Your task to perform on an android device: install app "LinkedIn" Image 0: 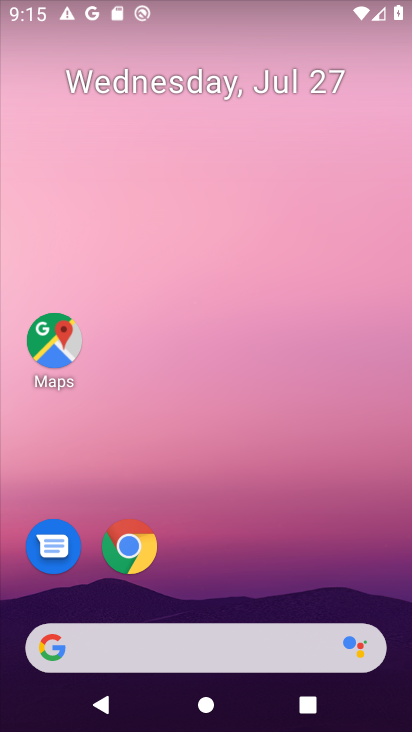
Step 0: drag from (278, 589) to (305, 9)
Your task to perform on an android device: install app "LinkedIn" Image 1: 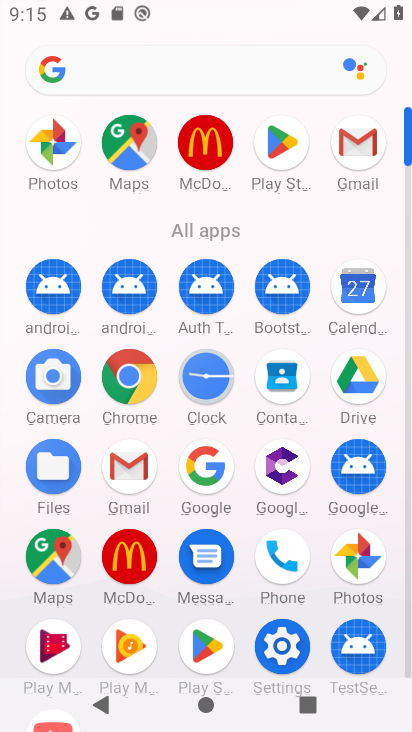
Step 1: click (273, 163)
Your task to perform on an android device: install app "LinkedIn" Image 2: 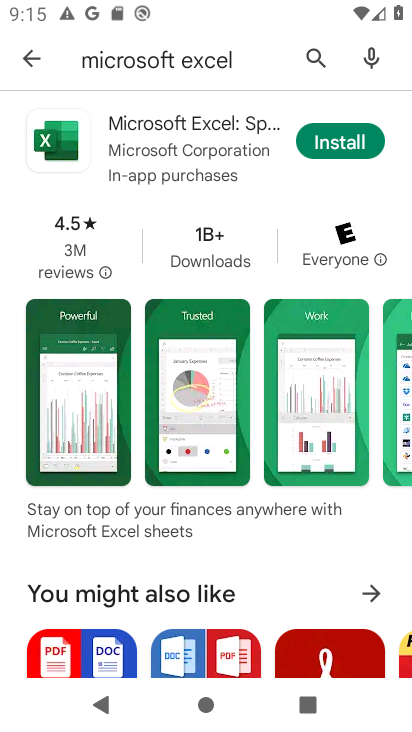
Step 2: click (312, 50)
Your task to perform on an android device: install app "LinkedIn" Image 3: 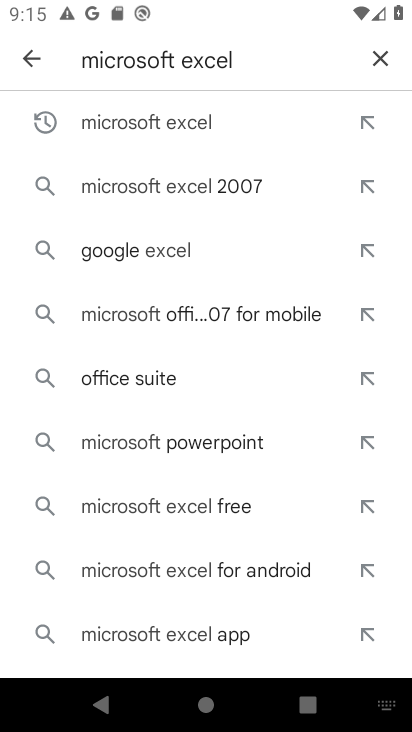
Step 3: click (382, 60)
Your task to perform on an android device: install app "LinkedIn" Image 4: 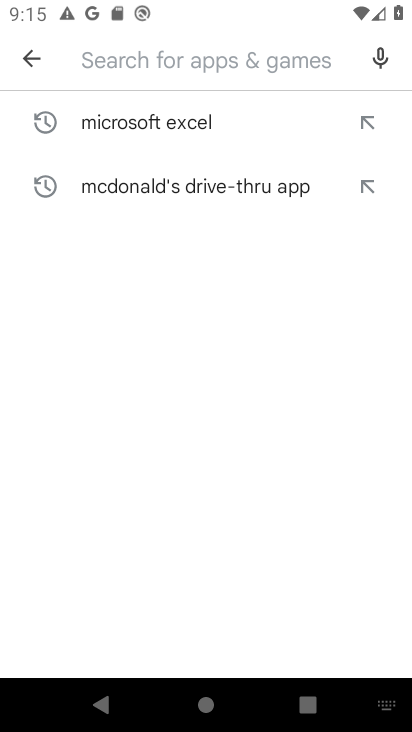
Step 4: type "LinkedIn"
Your task to perform on an android device: install app "LinkedIn" Image 5: 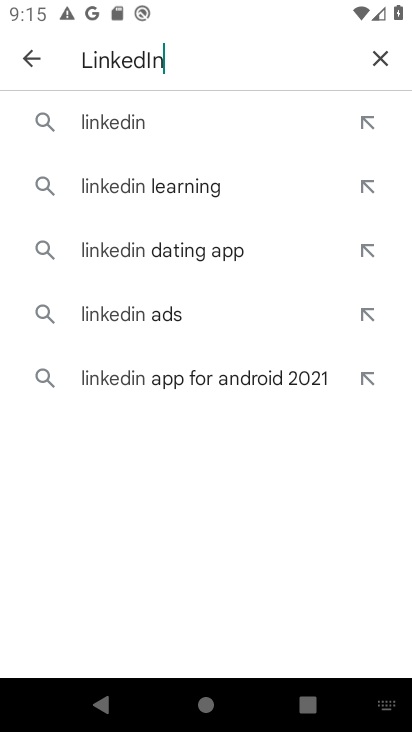
Step 5: click (82, 119)
Your task to perform on an android device: install app "LinkedIn" Image 6: 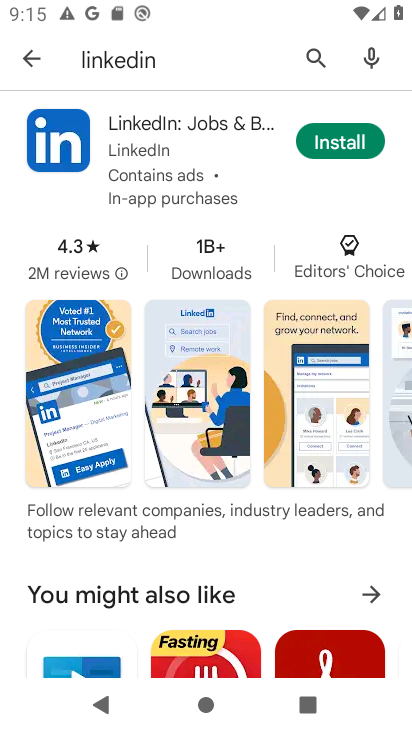
Step 6: click (364, 134)
Your task to perform on an android device: install app "LinkedIn" Image 7: 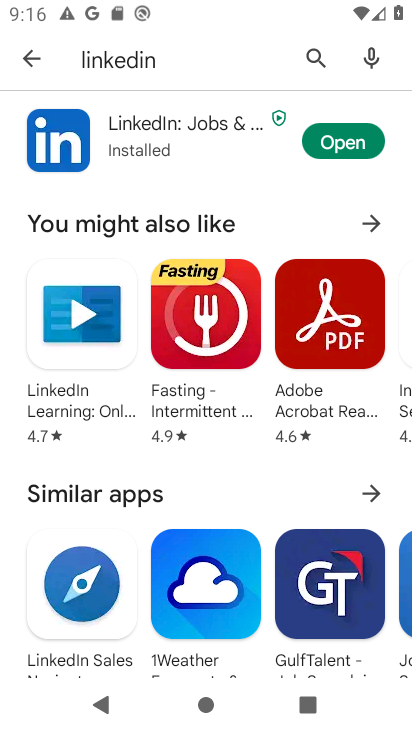
Step 7: task complete